Your task to perform on an android device: toggle airplane mode Image 0: 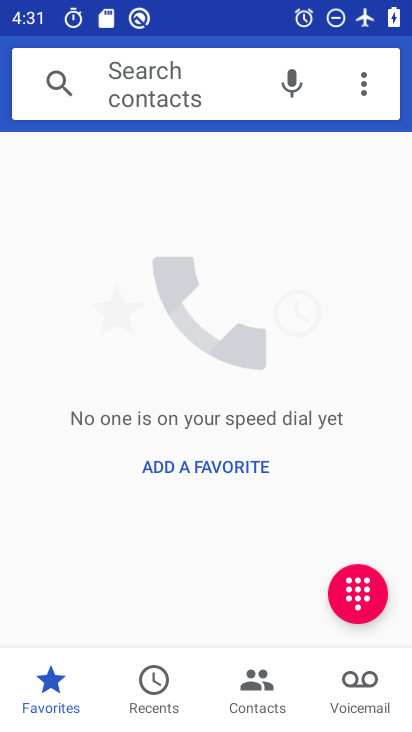
Step 0: press home button
Your task to perform on an android device: toggle airplane mode Image 1: 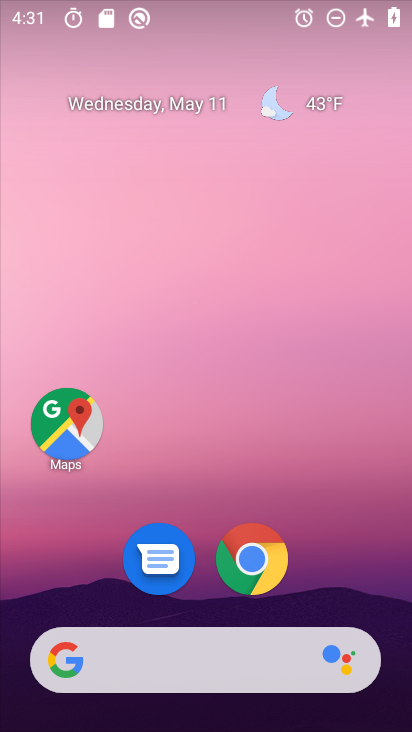
Step 1: drag from (343, 549) to (208, 110)
Your task to perform on an android device: toggle airplane mode Image 2: 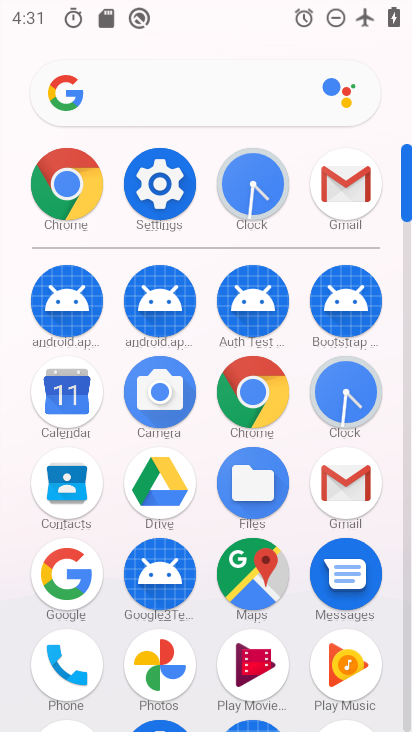
Step 2: click (154, 158)
Your task to perform on an android device: toggle airplane mode Image 3: 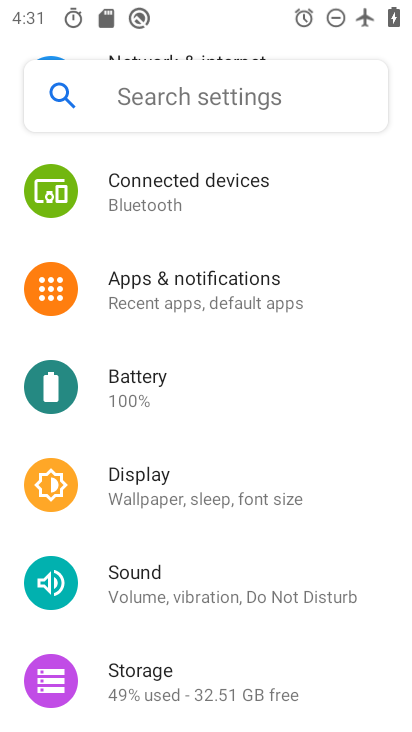
Step 3: drag from (227, 238) to (221, 670)
Your task to perform on an android device: toggle airplane mode Image 4: 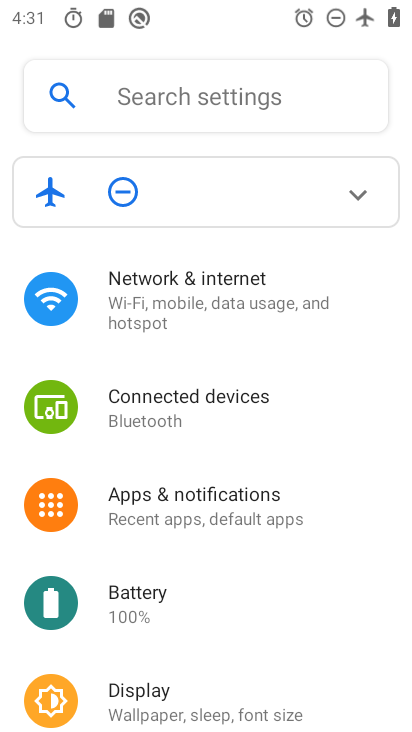
Step 4: click (211, 313)
Your task to perform on an android device: toggle airplane mode Image 5: 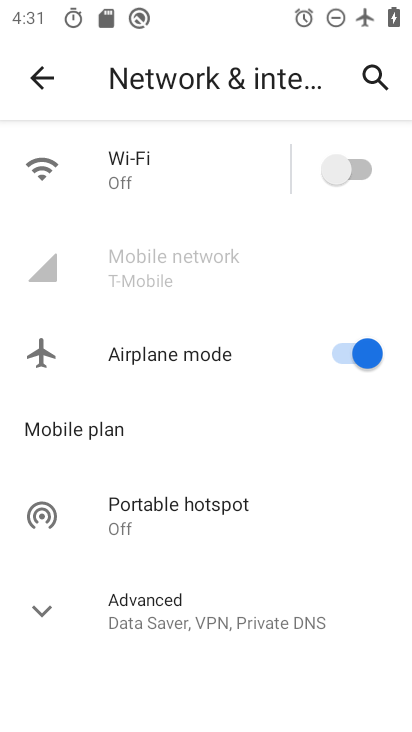
Step 5: click (359, 353)
Your task to perform on an android device: toggle airplane mode Image 6: 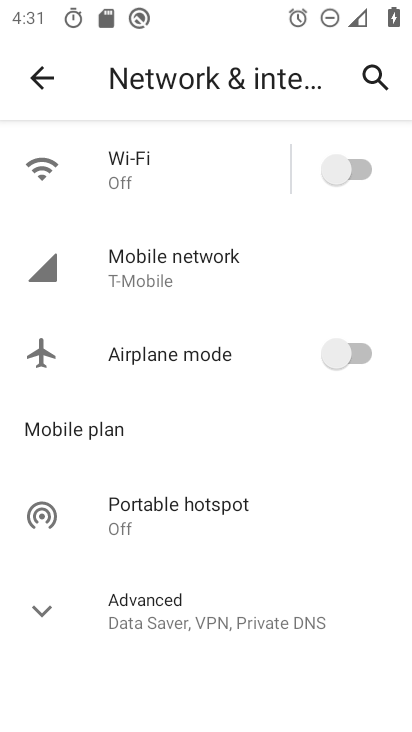
Step 6: task complete